Your task to perform on an android device: Open Google Chrome and open the bookmarks view Image 0: 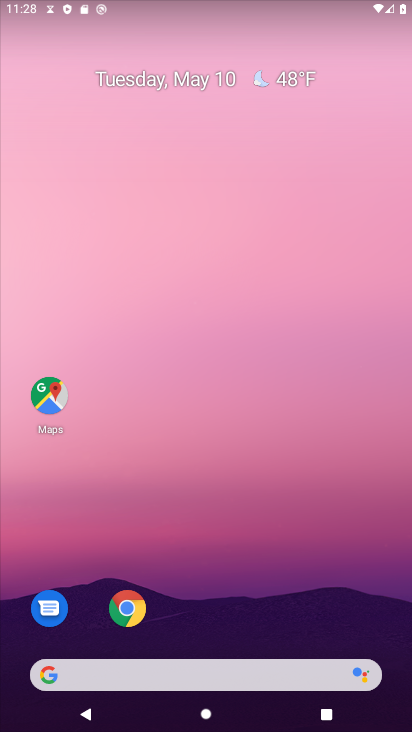
Step 0: click (124, 604)
Your task to perform on an android device: Open Google Chrome and open the bookmarks view Image 1: 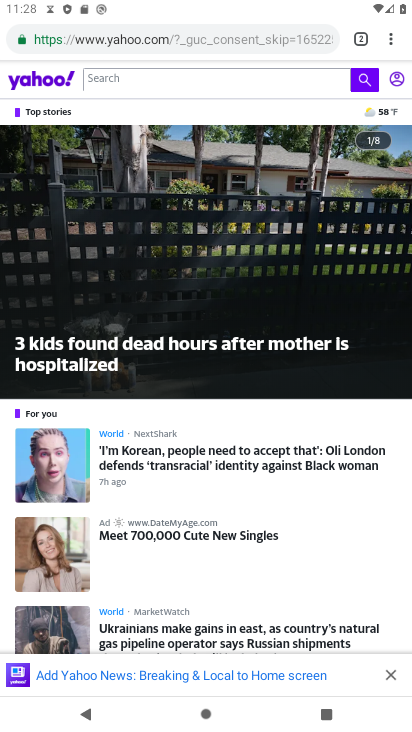
Step 1: click (387, 35)
Your task to perform on an android device: Open Google Chrome and open the bookmarks view Image 2: 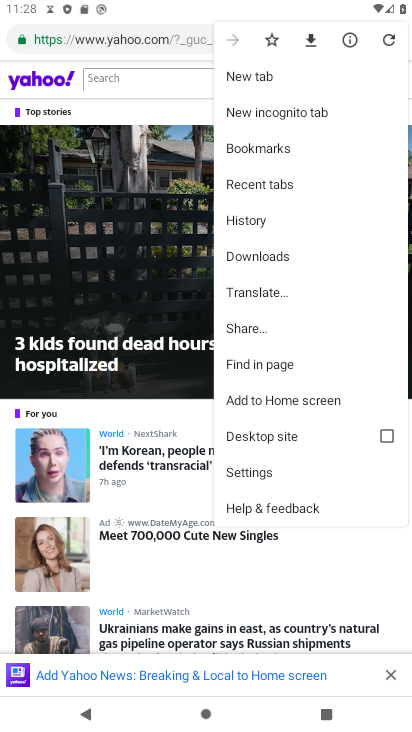
Step 2: click (274, 150)
Your task to perform on an android device: Open Google Chrome and open the bookmarks view Image 3: 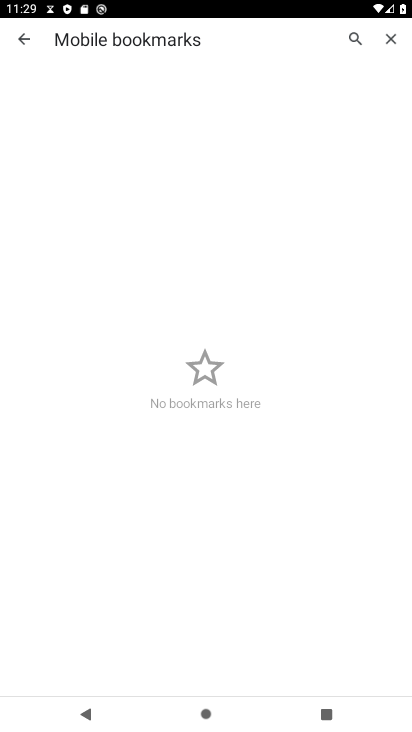
Step 3: task complete